Your task to perform on an android device: Go to sound settings Image 0: 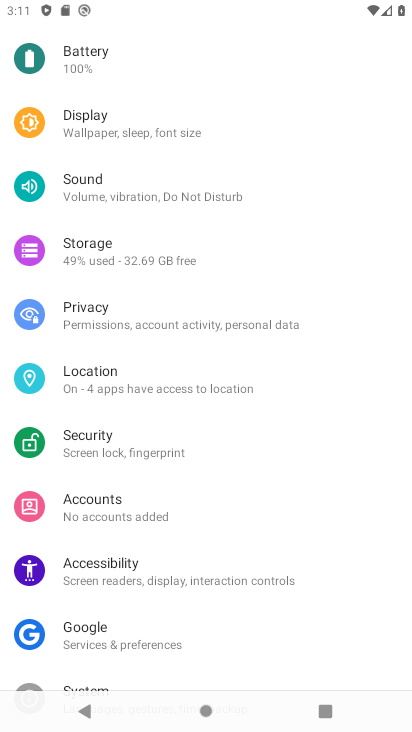
Step 0: click (87, 184)
Your task to perform on an android device: Go to sound settings Image 1: 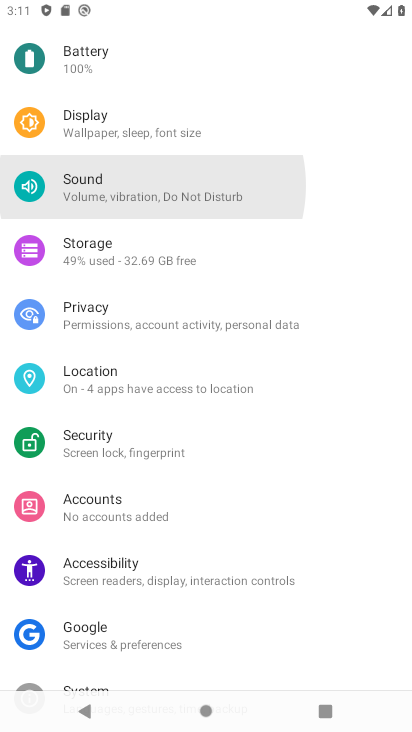
Step 1: click (87, 185)
Your task to perform on an android device: Go to sound settings Image 2: 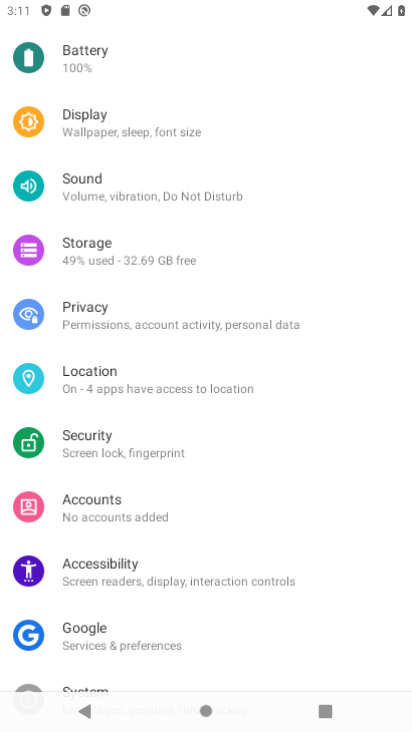
Step 2: click (92, 187)
Your task to perform on an android device: Go to sound settings Image 3: 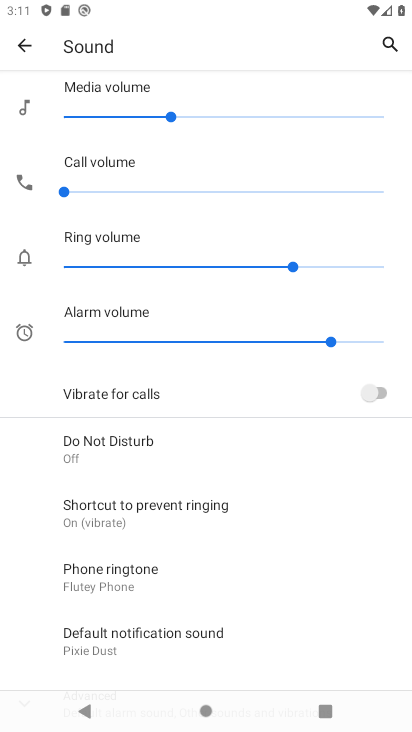
Step 3: task complete